Your task to perform on an android device: Open network settings Image 0: 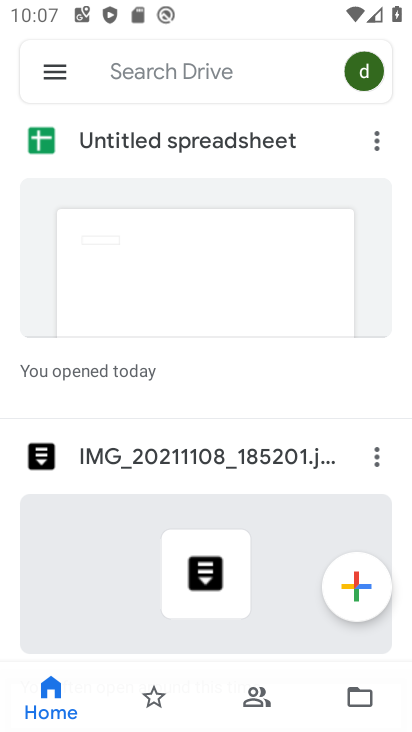
Step 0: press home button
Your task to perform on an android device: Open network settings Image 1: 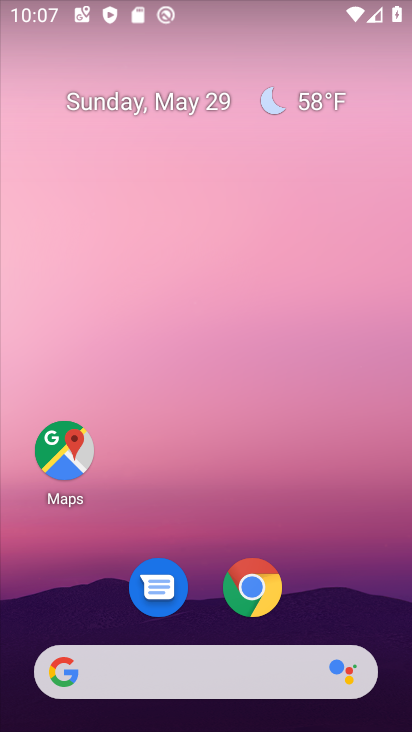
Step 1: drag from (361, 592) to (216, 72)
Your task to perform on an android device: Open network settings Image 2: 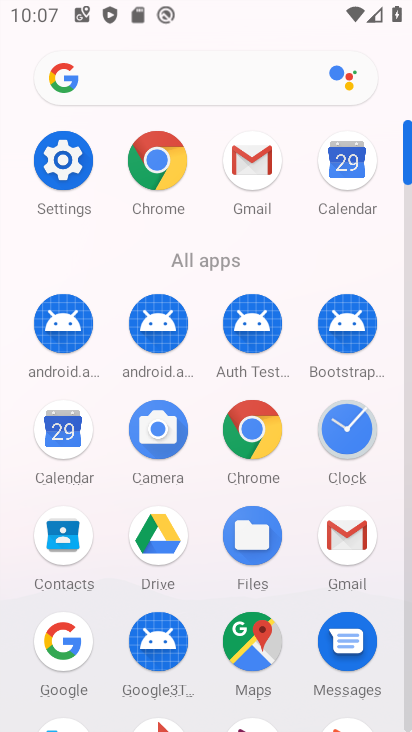
Step 2: click (62, 178)
Your task to perform on an android device: Open network settings Image 3: 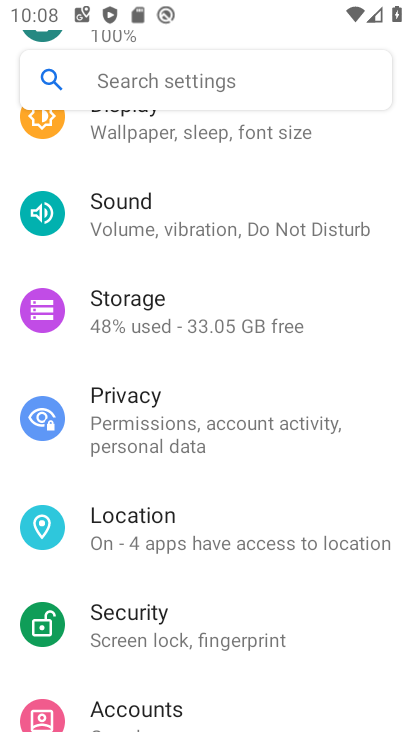
Step 3: drag from (170, 171) to (213, 510)
Your task to perform on an android device: Open network settings Image 4: 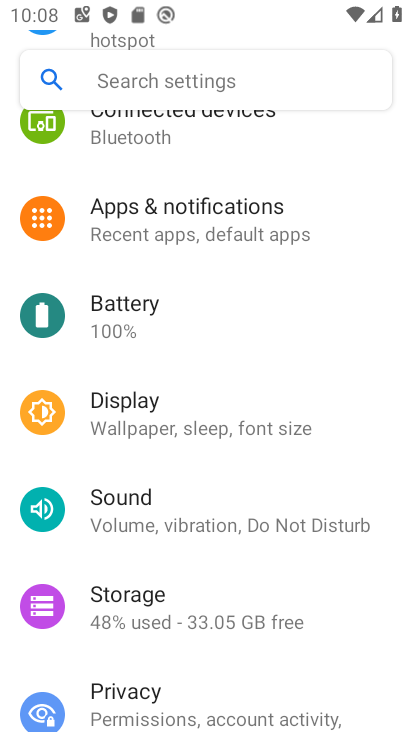
Step 4: drag from (259, 286) to (312, 721)
Your task to perform on an android device: Open network settings Image 5: 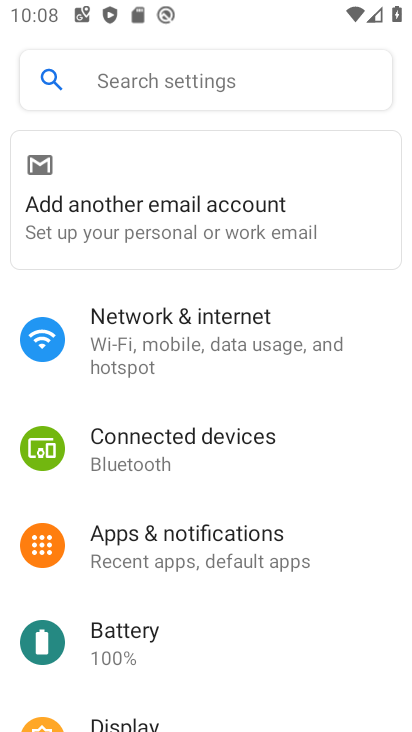
Step 5: click (216, 352)
Your task to perform on an android device: Open network settings Image 6: 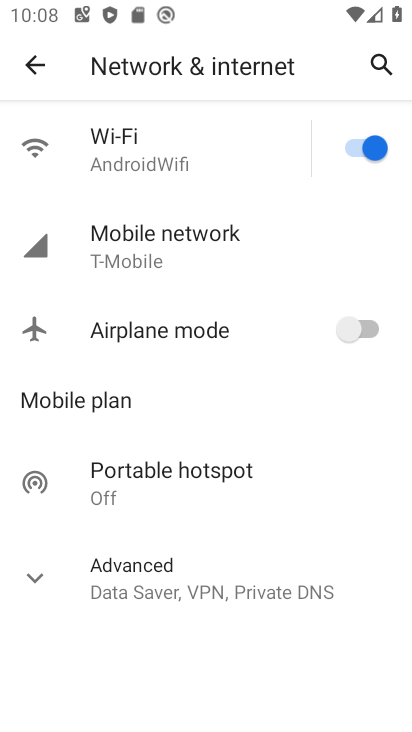
Step 6: task complete